Your task to perform on an android device: Is it going to rain tomorrow? Image 0: 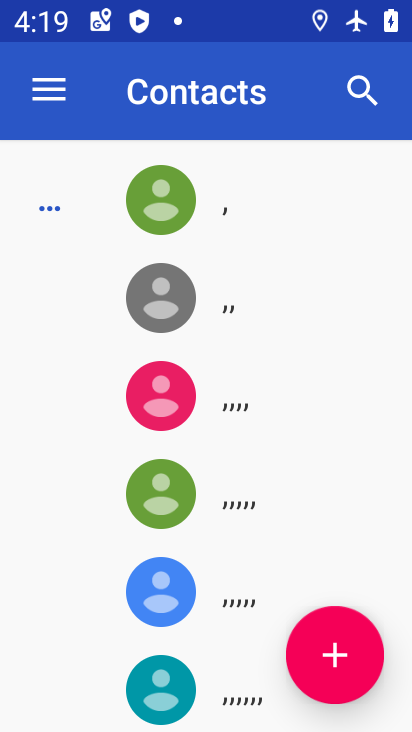
Step 0: press back button
Your task to perform on an android device: Is it going to rain tomorrow? Image 1: 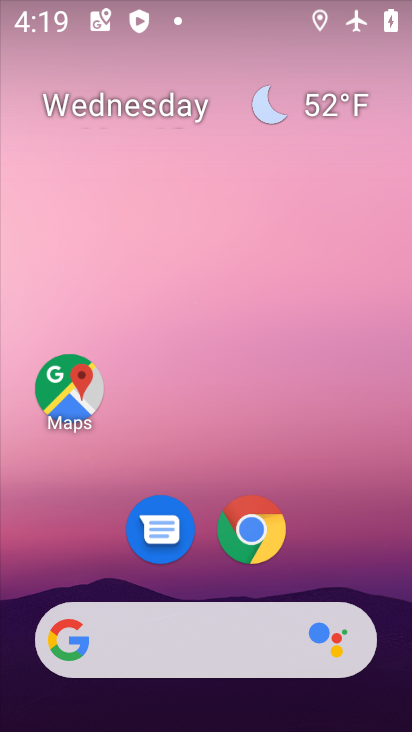
Step 1: drag from (330, 455) to (231, 60)
Your task to perform on an android device: Is it going to rain tomorrow? Image 2: 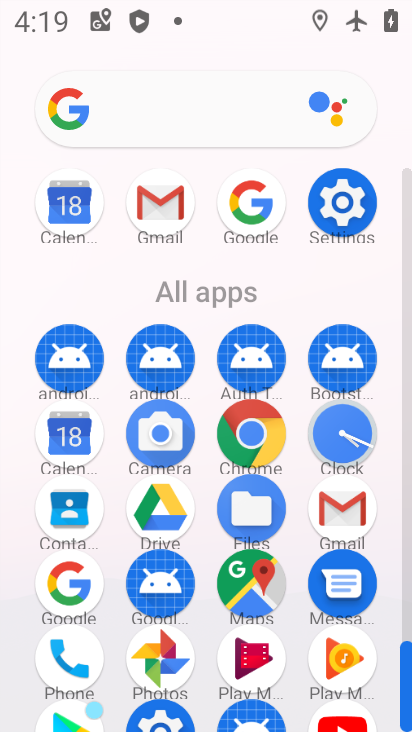
Step 2: click (244, 201)
Your task to perform on an android device: Is it going to rain tomorrow? Image 3: 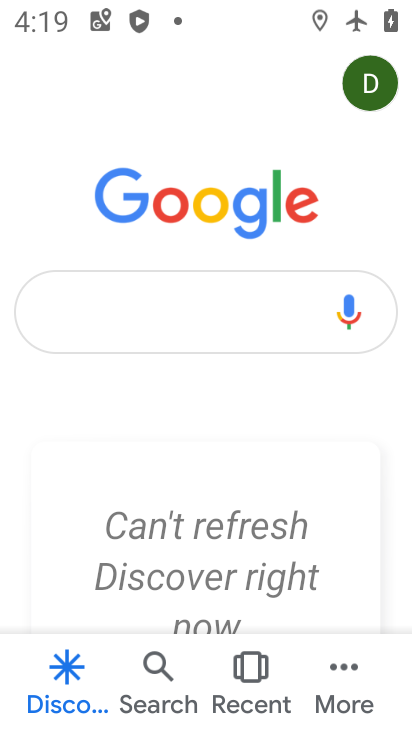
Step 3: click (193, 312)
Your task to perform on an android device: Is it going to rain tomorrow? Image 4: 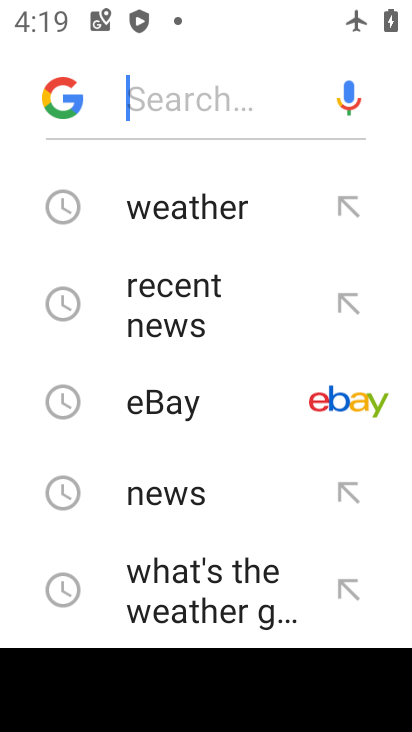
Step 4: type "Is it going to rain tomorrow"
Your task to perform on an android device: Is it going to rain tomorrow? Image 5: 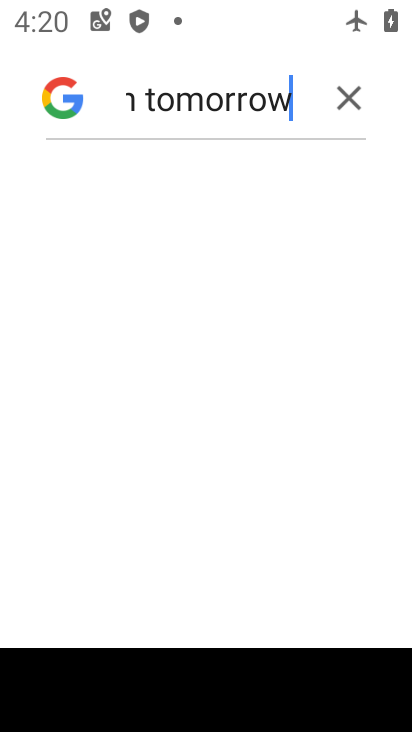
Step 5: task complete